Your task to perform on an android device: toggle translation in the chrome app Image 0: 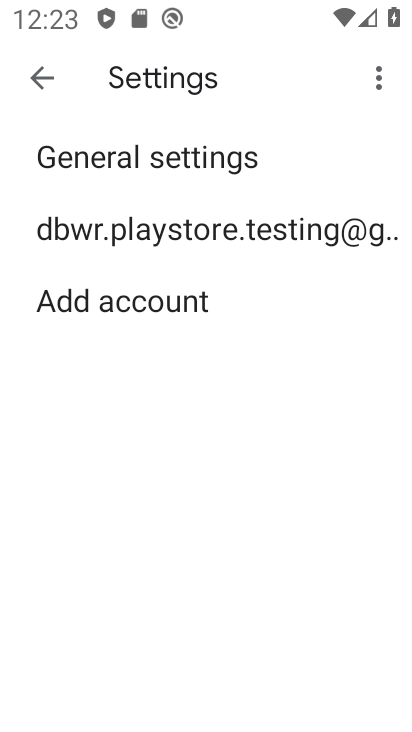
Step 0: press back button
Your task to perform on an android device: toggle translation in the chrome app Image 1: 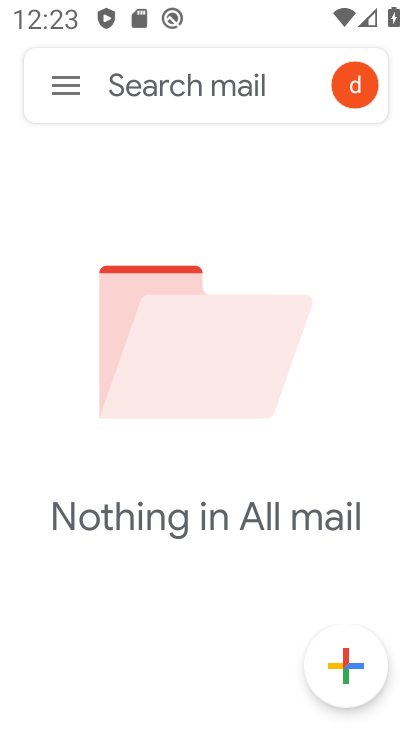
Step 1: press back button
Your task to perform on an android device: toggle translation in the chrome app Image 2: 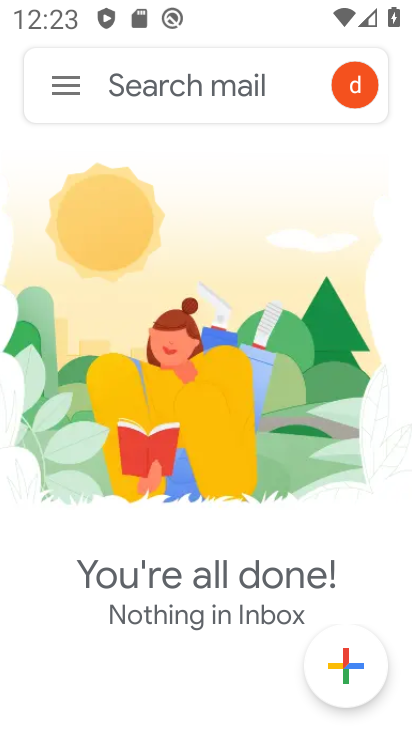
Step 2: press back button
Your task to perform on an android device: toggle translation in the chrome app Image 3: 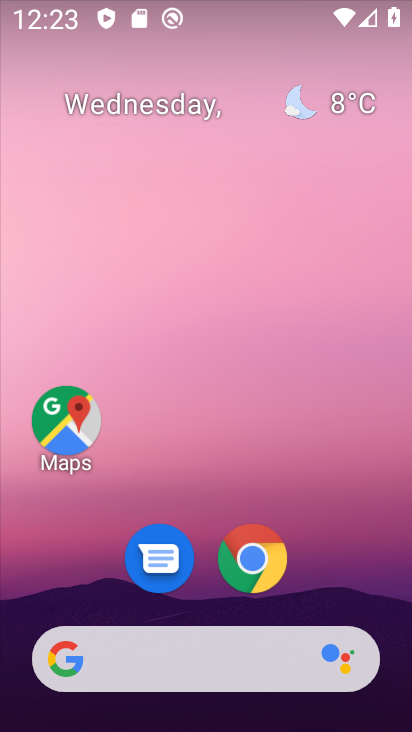
Step 3: click (253, 549)
Your task to perform on an android device: toggle translation in the chrome app Image 4: 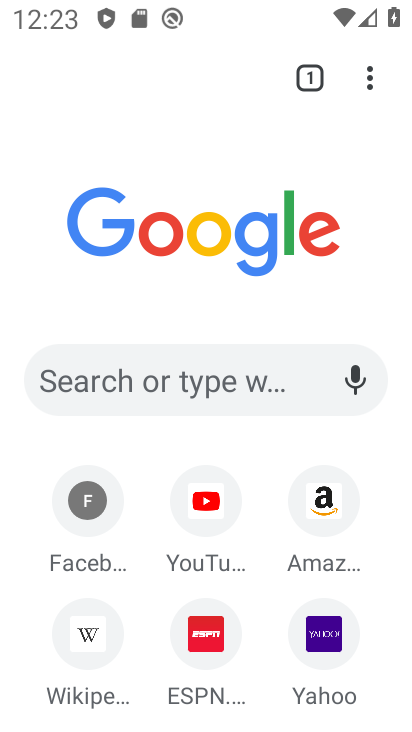
Step 4: drag from (371, 76) to (137, 637)
Your task to perform on an android device: toggle translation in the chrome app Image 5: 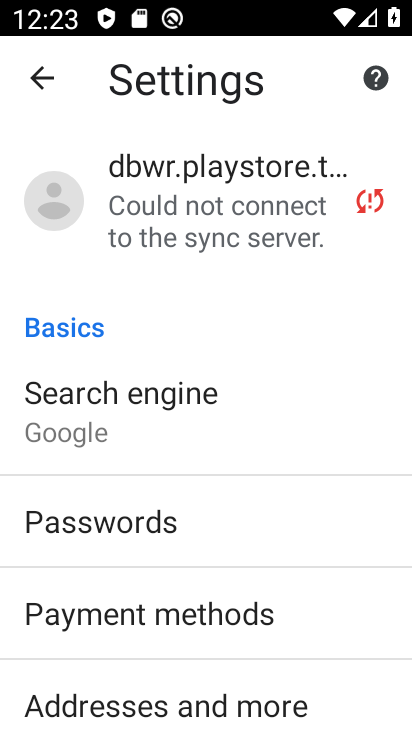
Step 5: drag from (208, 476) to (231, 205)
Your task to perform on an android device: toggle translation in the chrome app Image 6: 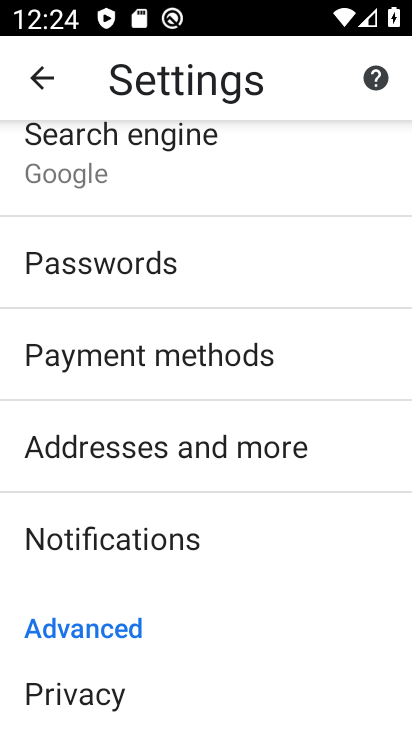
Step 6: drag from (201, 485) to (243, 154)
Your task to perform on an android device: toggle translation in the chrome app Image 7: 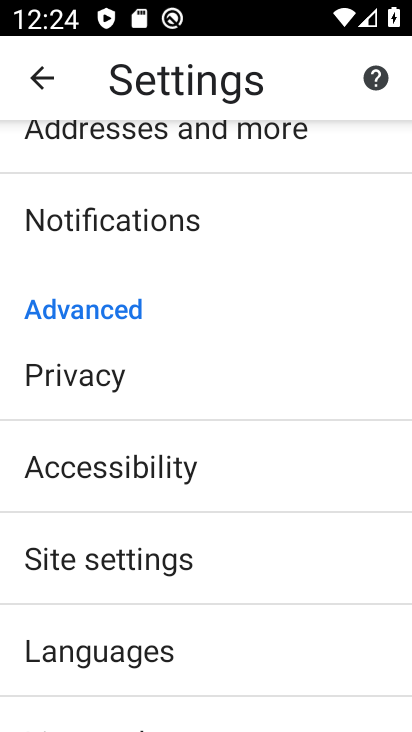
Step 7: drag from (248, 458) to (280, 128)
Your task to perform on an android device: toggle translation in the chrome app Image 8: 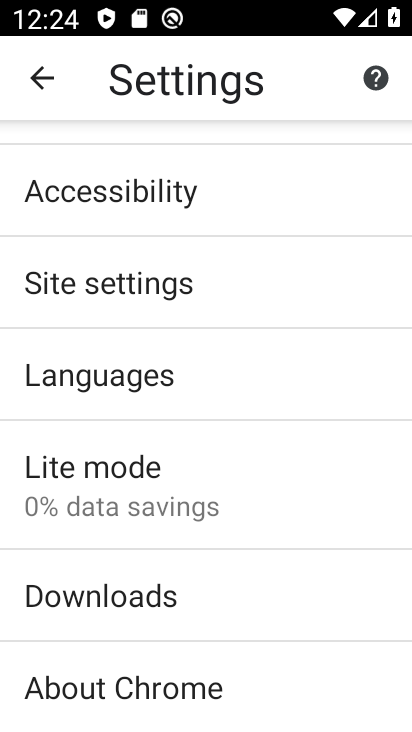
Step 8: drag from (229, 518) to (261, 175)
Your task to perform on an android device: toggle translation in the chrome app Image 9: 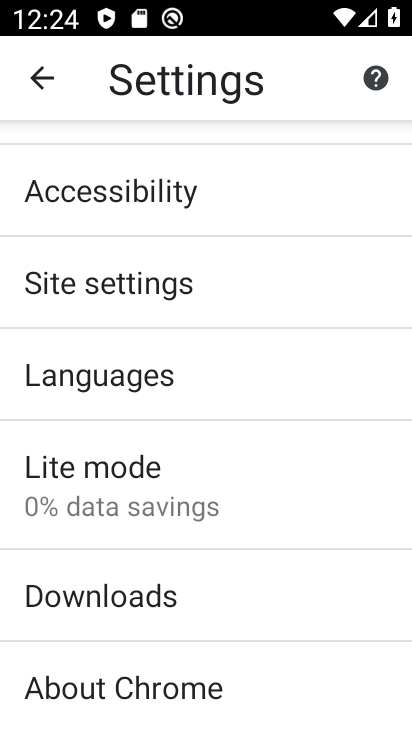
Step 9: drag from (248, 527) to (273, 215)
Your task to perform on an android device: toggle translation in the chrome app Image 10: 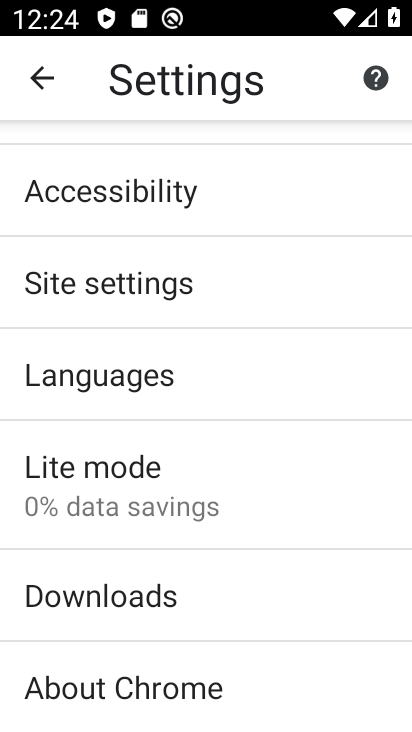
Step 10: click (184, 374)
Your task to perform on an android device: toggle translation in the chrome app Image 11: 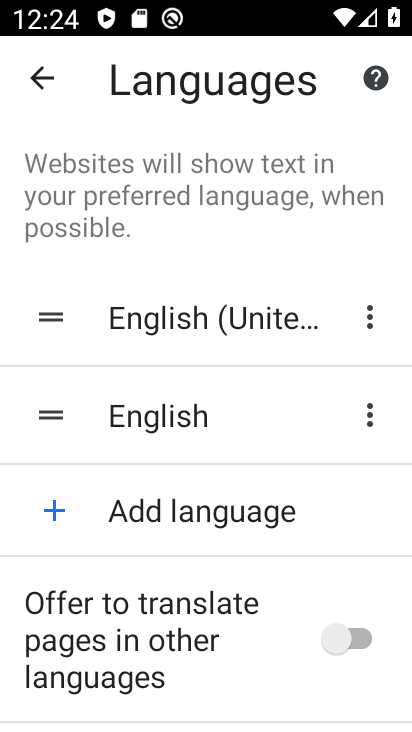
Step 11: click (357, 635)
Your task to perform on an android device: toggle translation in the chrome app Image 12: 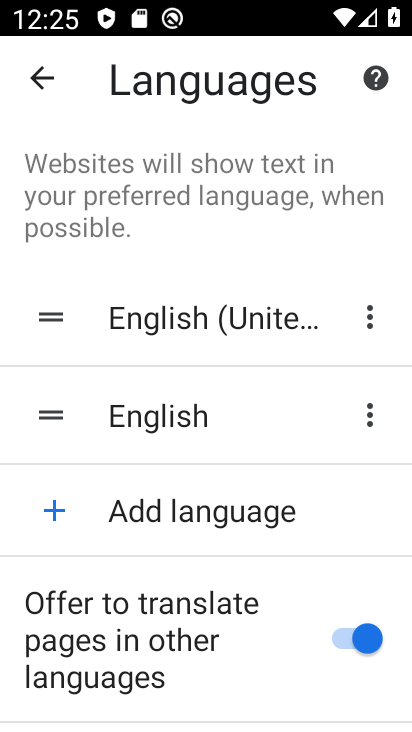
Step 12: task complete